Your task to perform on an android device: delete the emails in spam in the gmail app Image 0: 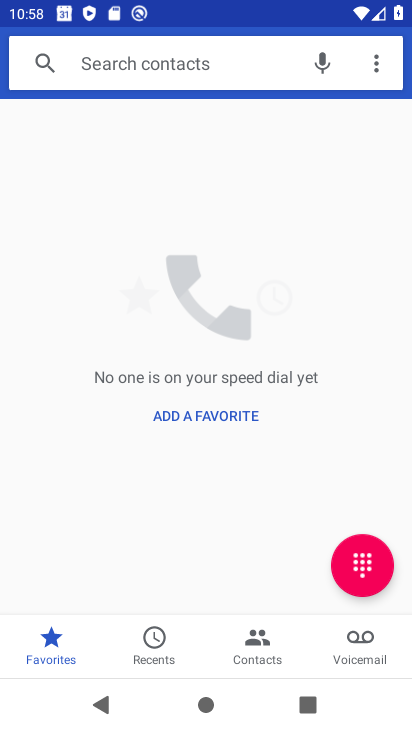
Step 0: press home button
Your task to perform on an android device: delete the emails in spam in the gmail app Image 1: 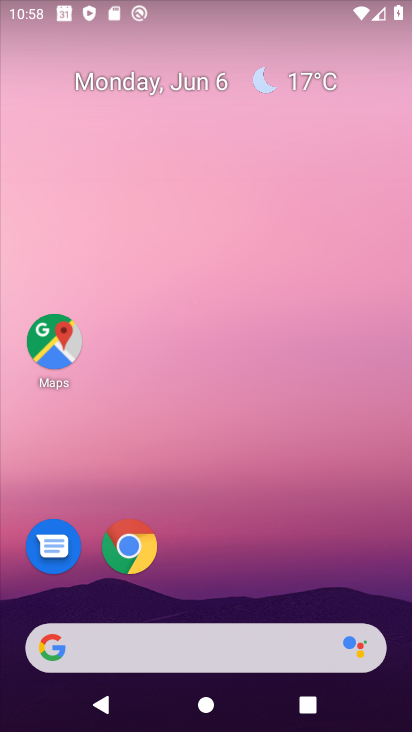
Step 1: drag from (275, 586) to (191, 108)
Your task to perform on an android device: delete the emails in spam in the gmail app Image 2: 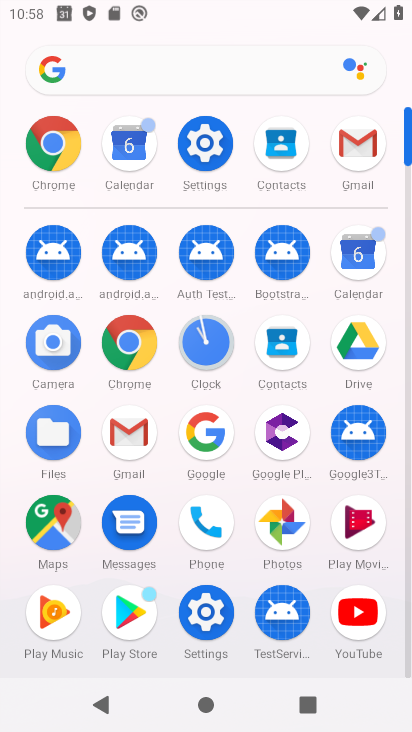
Step 2: click (348, 153)
Your task to perform on an android device: delete the emails in spam in the gmail app Image 3: 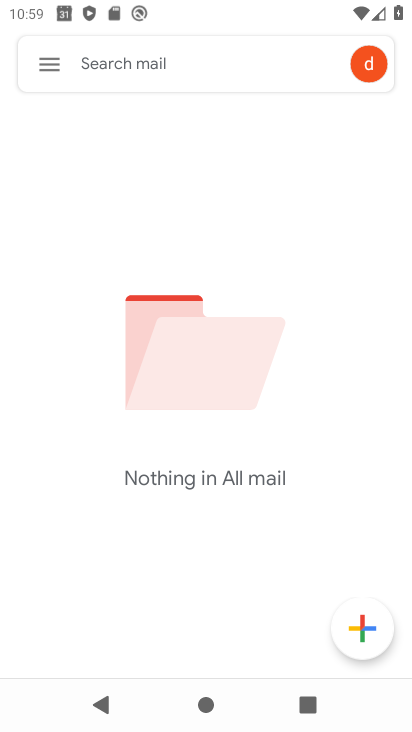
Step 3: click (43, 54)
Your task to perform on an android device: delete the emails in spam in the gmail app Image 4: 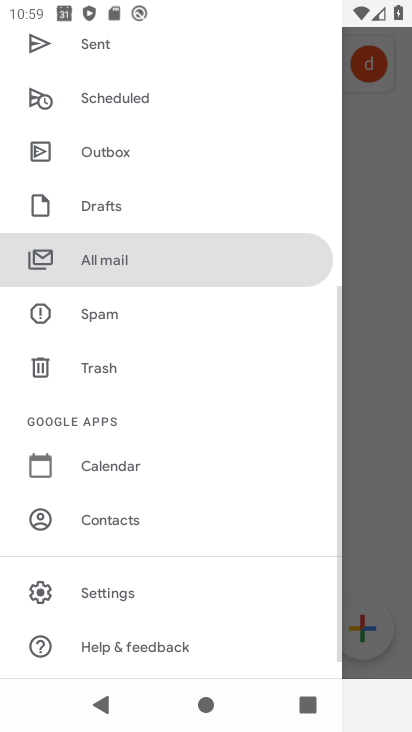
Step 4: click (131, 268)
Your task to perform on an android device: delete the emails in spam in the gmail app Image 5: 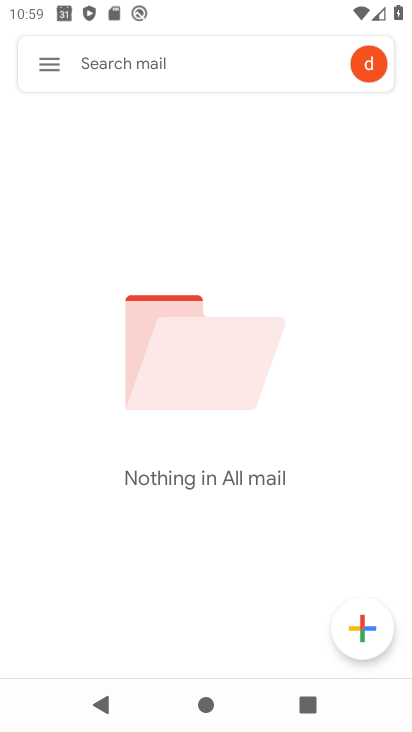
Step 5: task complete